Your task to perform on an android device: Check the news Image 0: 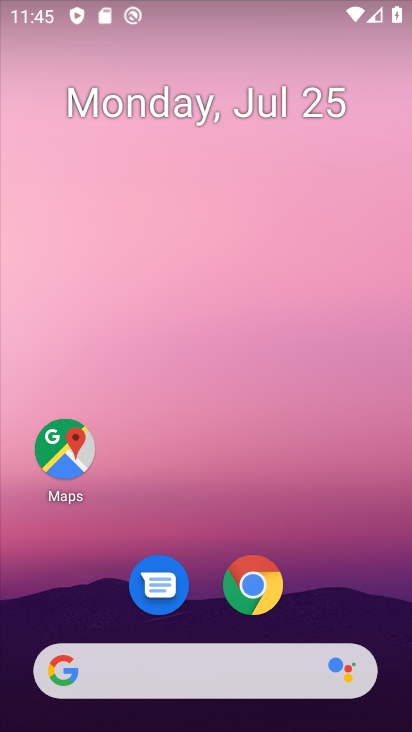
Step 0: drag from (328, 536) to (272, 124)
Your task to perform on an android device: Check the news Image 1: 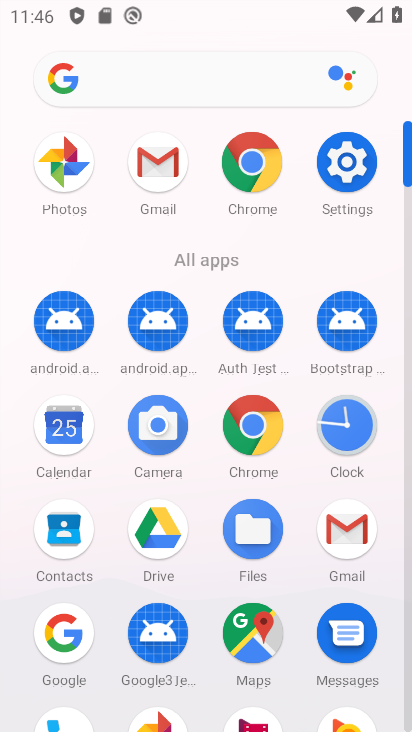
Step 1: press back button
Your task to perform on an android device: Check the news Image 2: 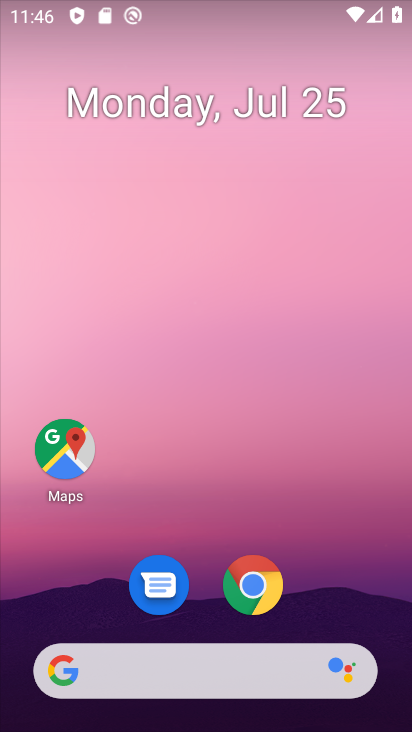
Step 2: click (248, 680)
Your task to perform on an android device: Check the news Image 3: 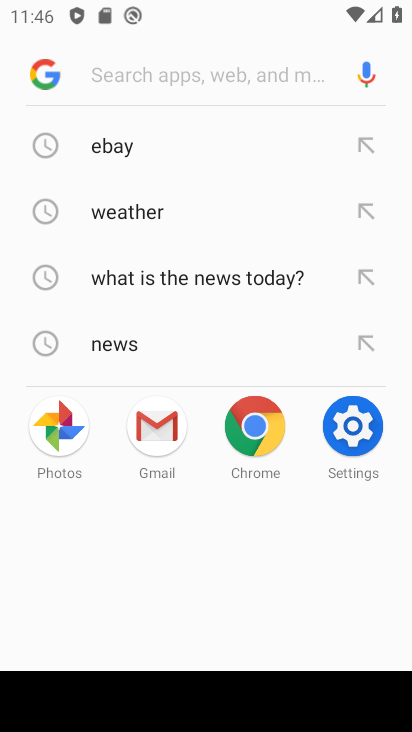
Step 3: click (114, 337)
Your task to perform on an android device: Check the news Image 4: 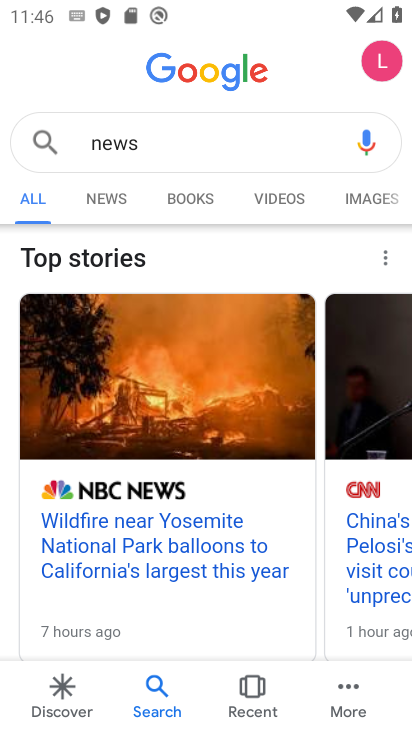
Step 4: drag from (248, 378) to (0, 377)
Your task to perform on an android device: Check the news Image 5: 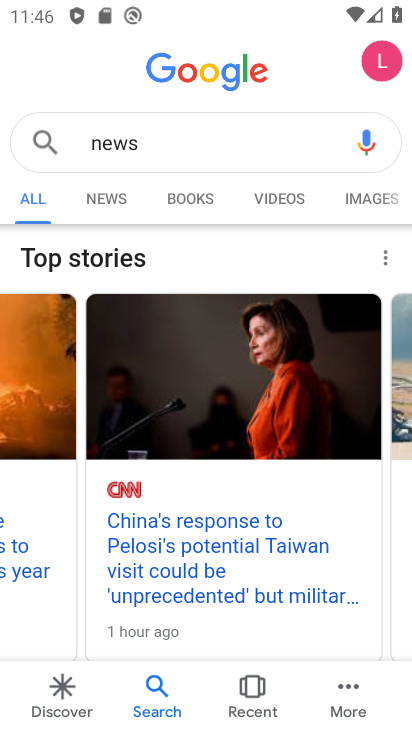
Step 5: click (205, 539)
Your task to perform on an android device: Check the news Image 6: 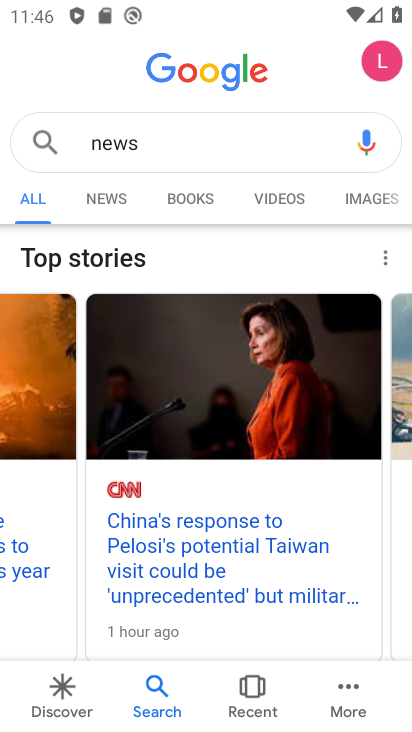
Step 6: click (213, 561)
Your task to perform on an android device: Check the news Image 7: 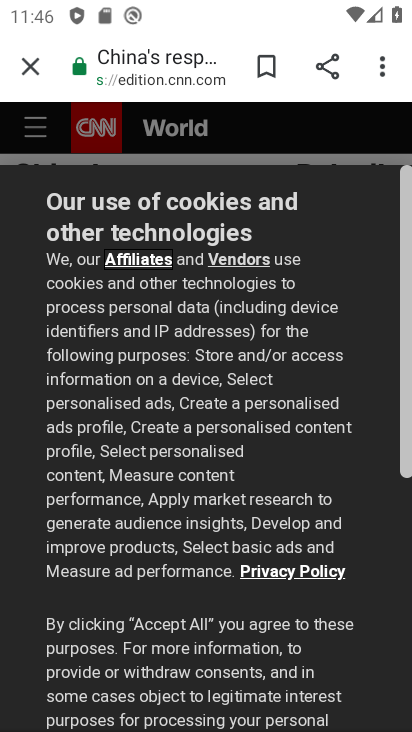
Step 7: drag from (194, 627) to (174, 188)
Your task to perform on an android device: Check the news Image 8: 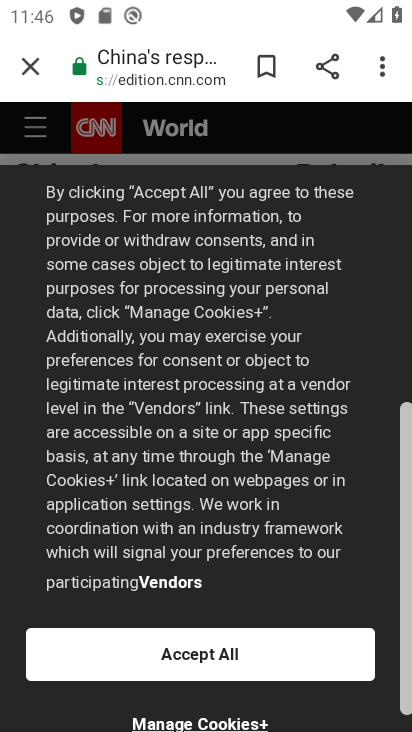
Step 8: click (256, 659)
Your task to perform on an android device: Check the news Image 9: 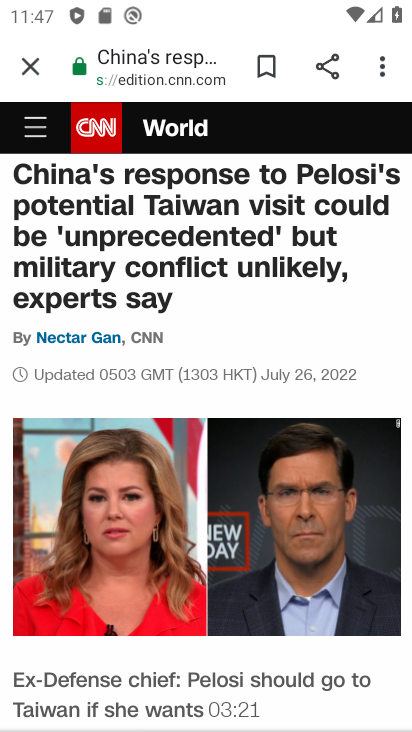
Step 9: task complete